Your task to perform on an android device: open sync settings in chrome Image 0: 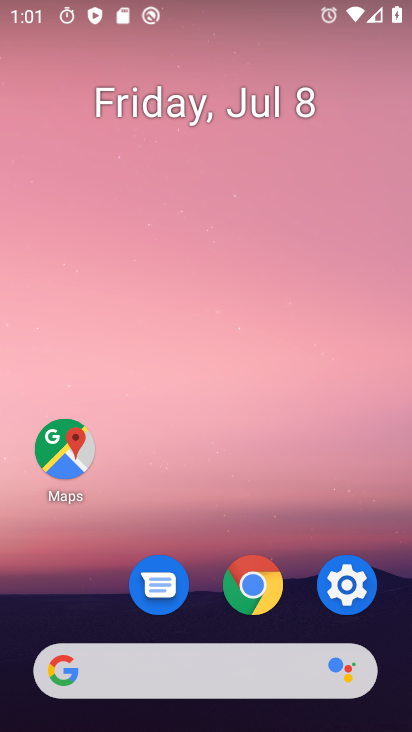
Step 0: click (265, 603)
Your task to perform on an android device: open sync settings in chrome Image 1: 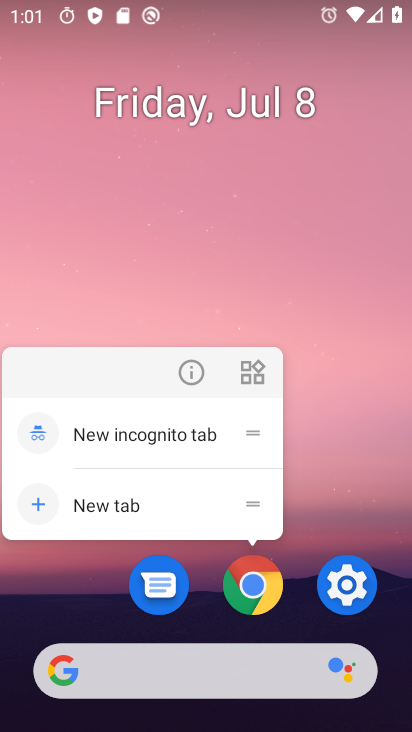
Step 1: click (265, 604)
Your task to perform on an android device: open sync settings in chrome Image 2: 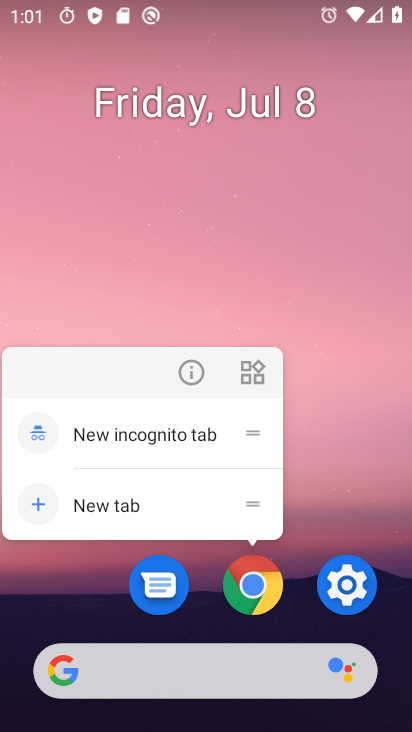
Step 2: click (265, 604)
Your task to perform on an android device: open sync settings in chrome Image 3: 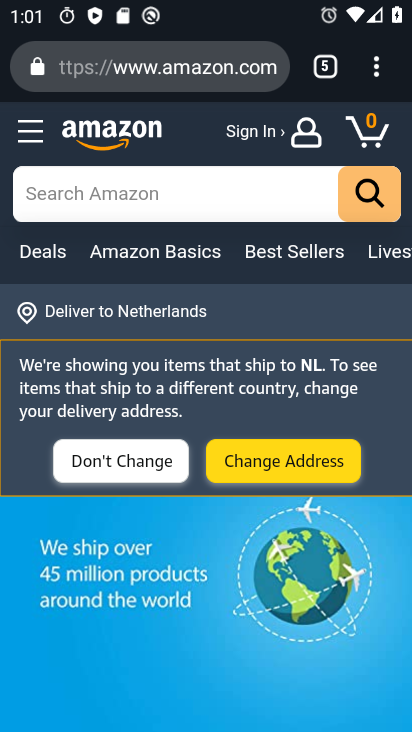
Step 3: click (372, 62)
Your task to perform on an android device: open sync settings in chrome Image 4: 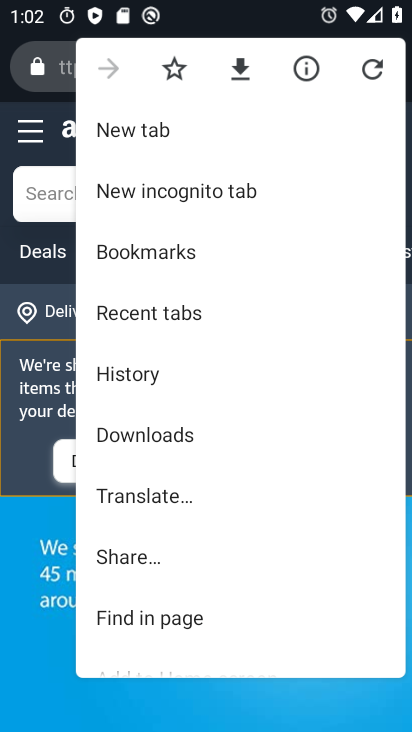
Step 4: drag from (141, 533) to (236, 354)
Your task to perform on an android device: open sync settings in chrome Image 5: 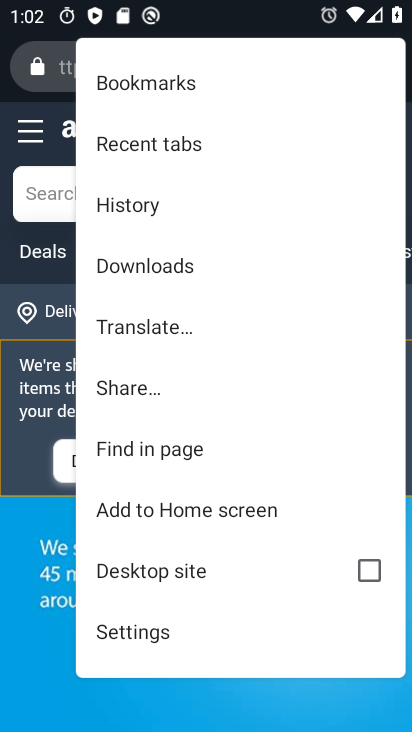
Step 5: click (134, 624)
Your task to perform on an android device: open sync settings in chrome Image 6: 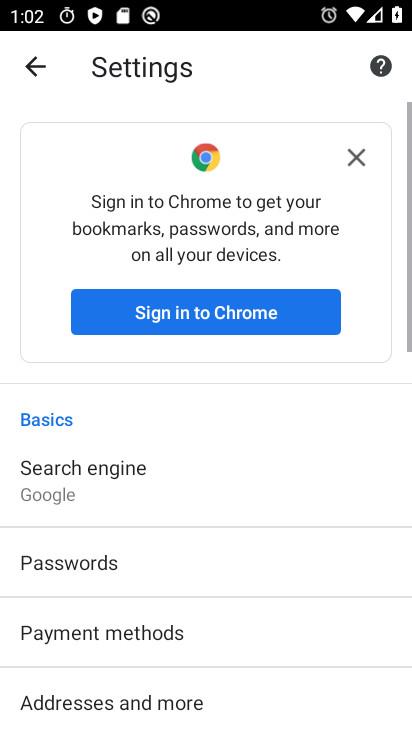
Step 6: drag from (121, 643) to (225, 338)
Your task to perform on an android device: open sync settings in chrome Image 7: 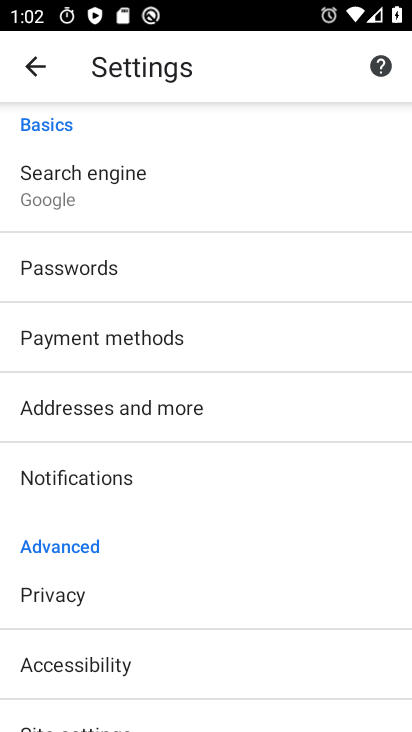
Step 7: drag from (90, 600) to (132, 449)
Your task to perform on an android device: open sync settings in chrome Image 8: 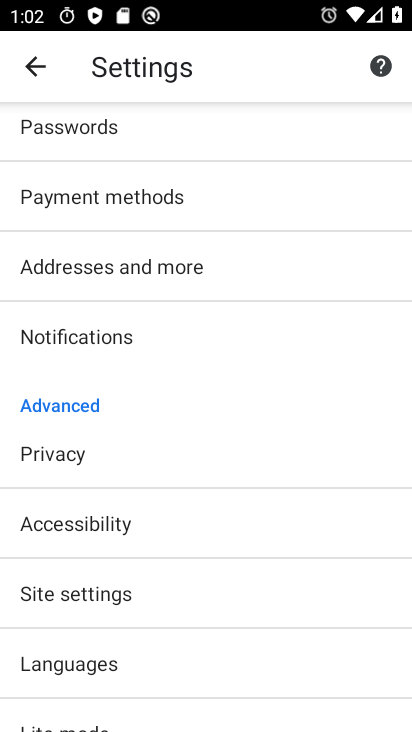
Step 8: click (92, 586)
Your task to perform on an android device: open sync settings in chrome Image 9: 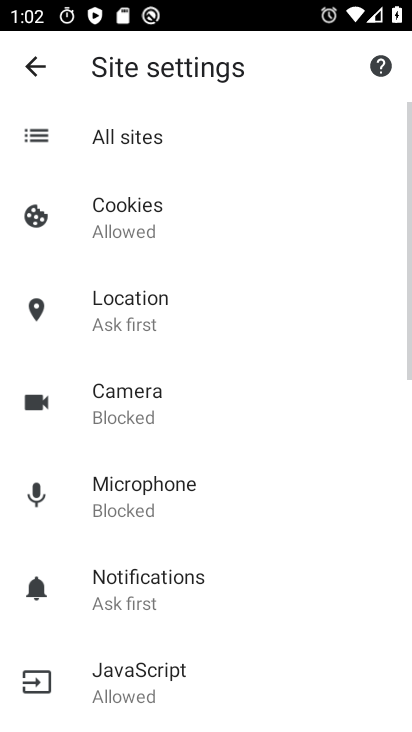
Step 9: drag from (150, 644) to (221, 358)
Your task to perform on an android device: open sync settings in chrome Image 10: 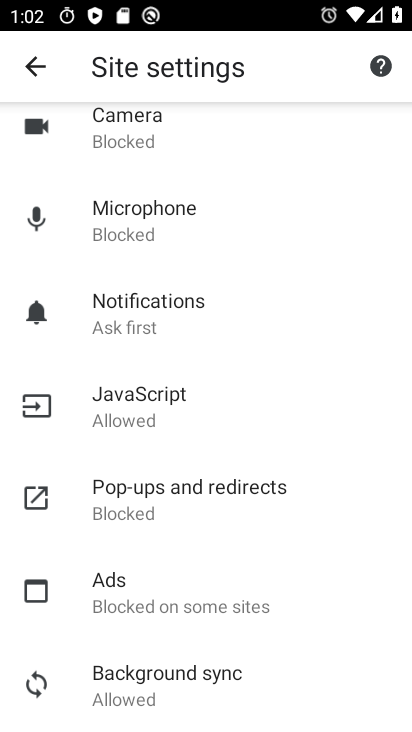
Step 10: click (159, 666)
Your task to perform on an android device: open sync settings in chrome Image 11: 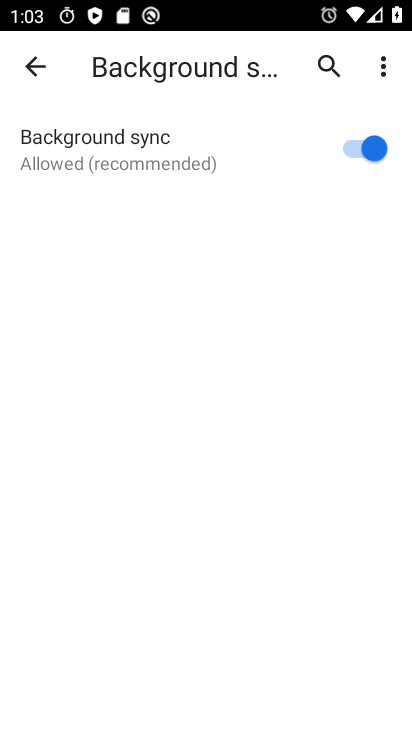
Step 11: task complete